Your task to perform on an android device: Go to CNN.com Image 0: 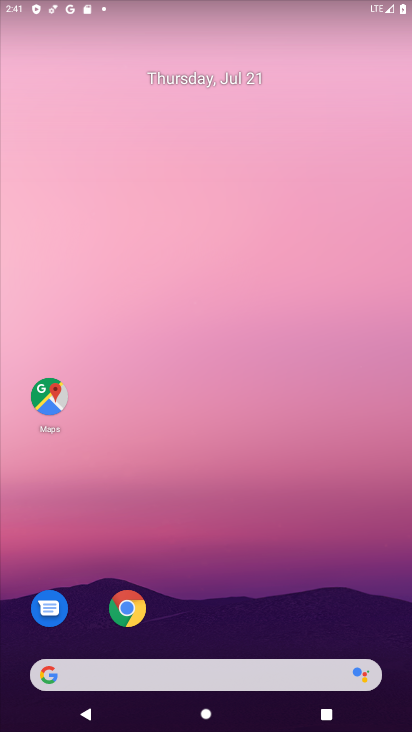
Step 0: drag from (200, 645) to (183, 21)
Your task to perform on an android device: Go to CNN.com Image 1: 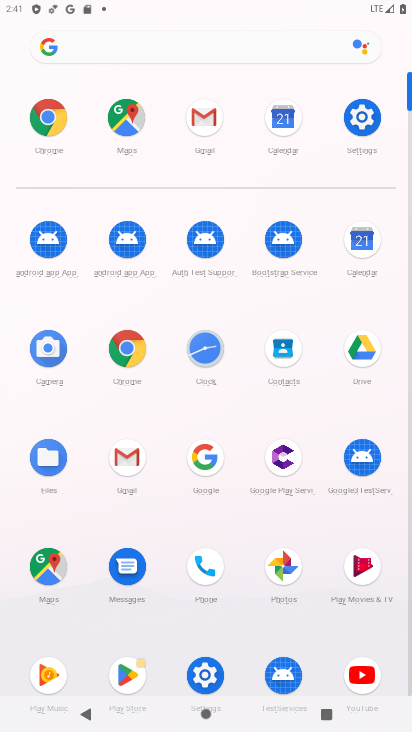
Step 1: click (128, 331)
Your task to perform on an android device: Go to CNN.com Image 2: 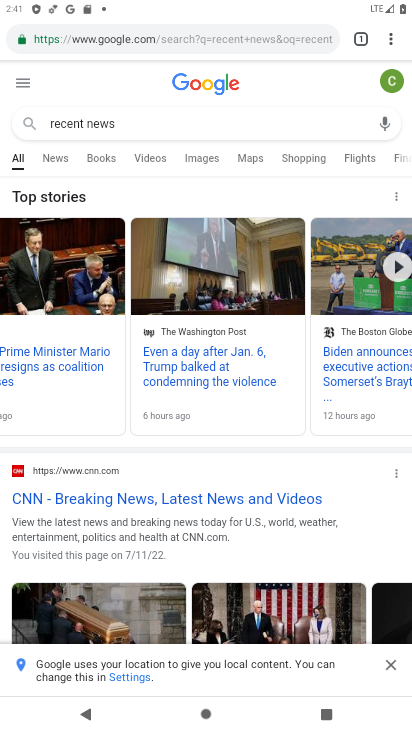
Step 2: click (364, 38)
Your task to perform on an android device: Go to CNN.com Image 3: 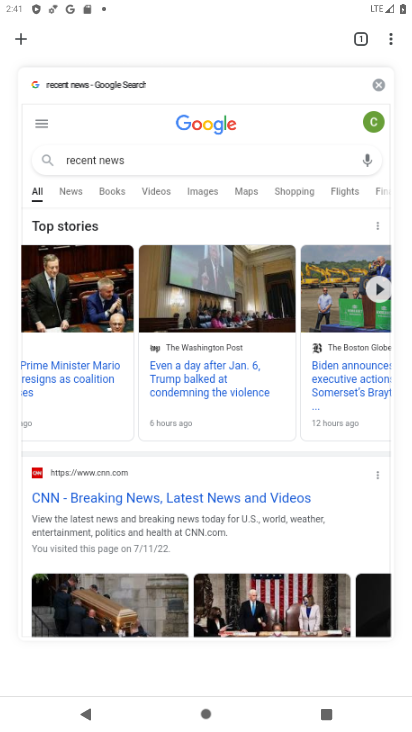
Step 3: click (24, 35)
Your task to perform on an android device: Go to CNN.com Image 4: 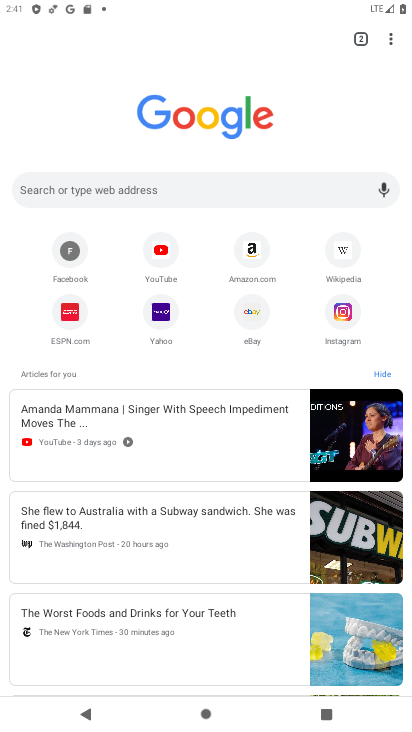
Step 4: click (100, 199)
Your task to perform on an android device: Go to CNN.com Image 5: 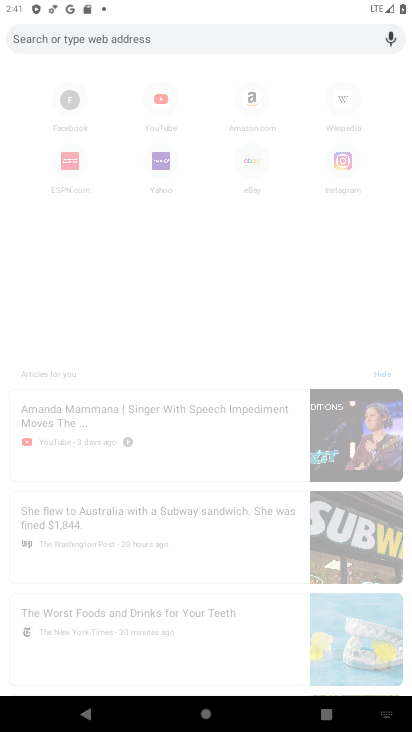
Step 5: type "cnn"
Your task to perform on an android device: Go to CNN.com Image 6: 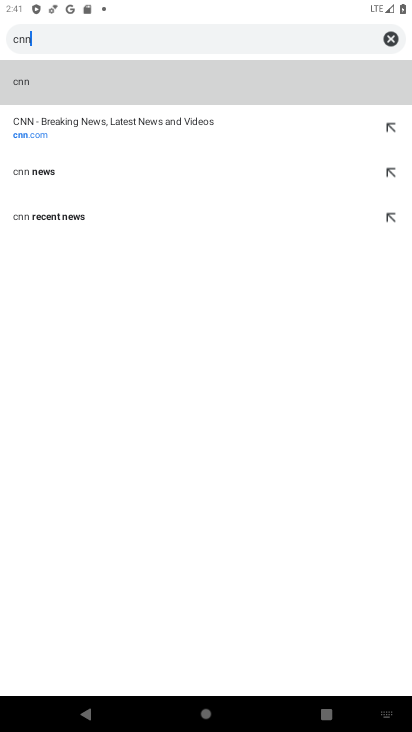
Step 6: click (39, 134)
Your task to perform on an android device: Go to CNN.com Image 7: 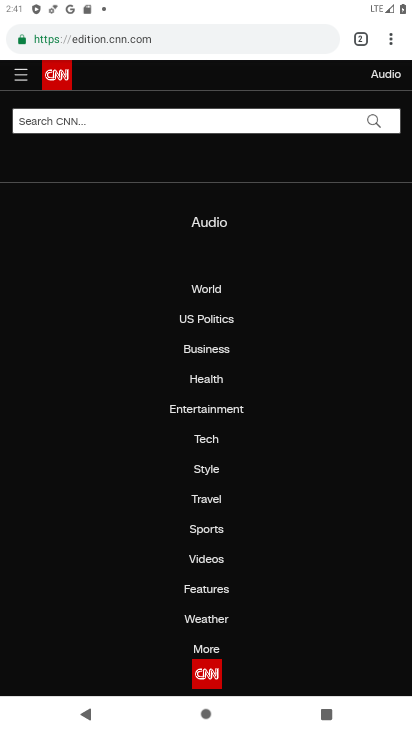
Step 7: task complete